Your task to perform on an android device: Open internet settings Image 0: 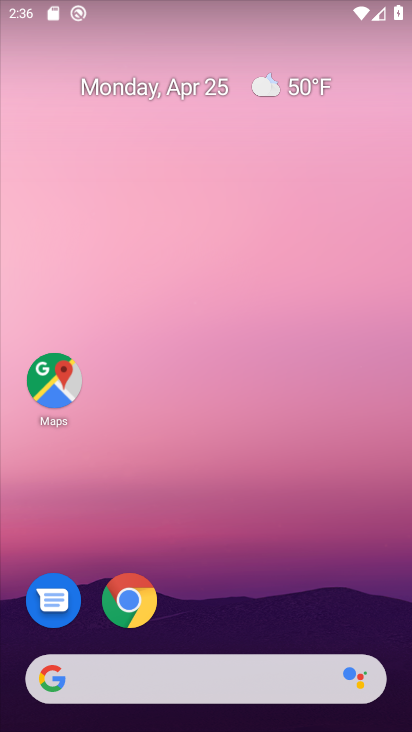
Step 0: drag from (372, 615) to (378, 231)
Your task to perform on an android device: Open internet settings Image 1: 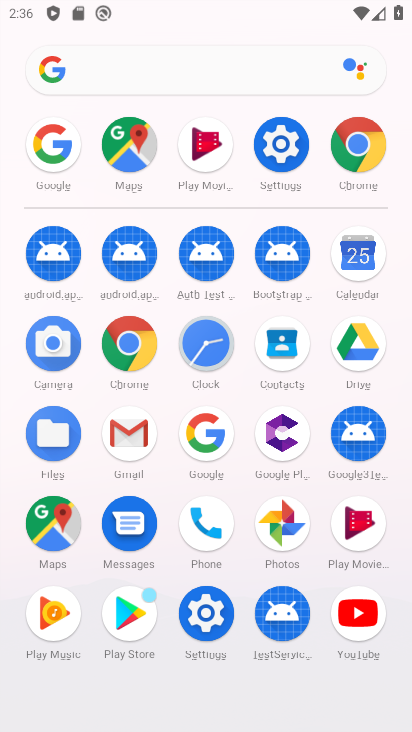
Step 1: click (220, 627)
Your task to perform on an android device: Open internet settings Image 2: 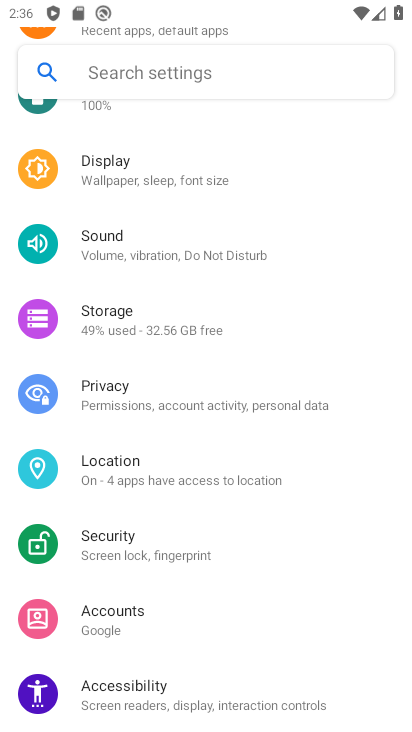
Step 2: drag from (195, 345) to (274, 609)
Your task to perform on an android device: Open internet settings Image 3: 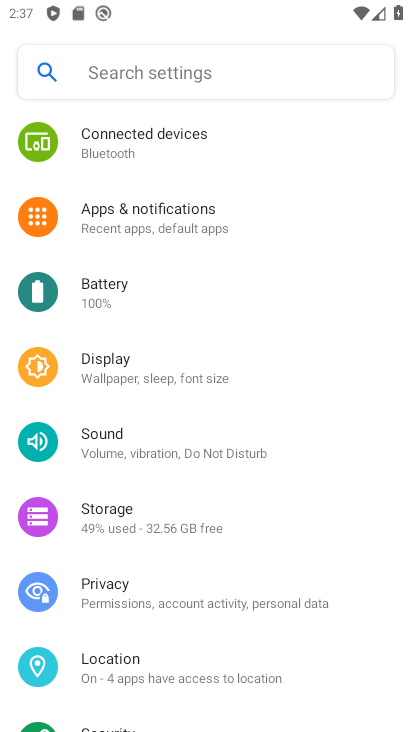
Step 3: drag from (198, 195) to (267, 453)
Your task to perform on an android device: Open internet settings Image 4: 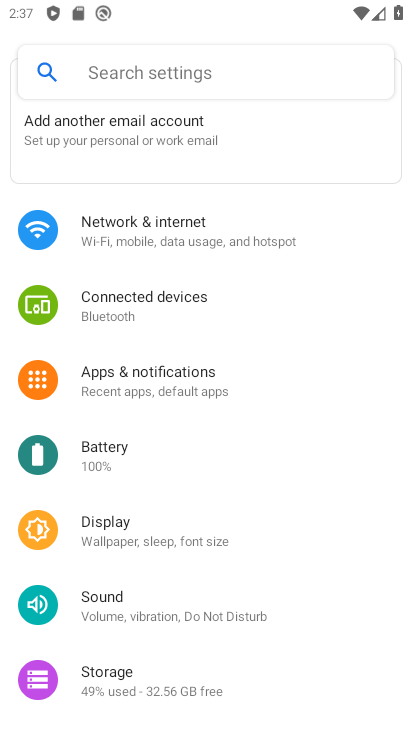
Step 4: click (158, 238)
Your task to perform on an android device: Open internet settings Image 5: 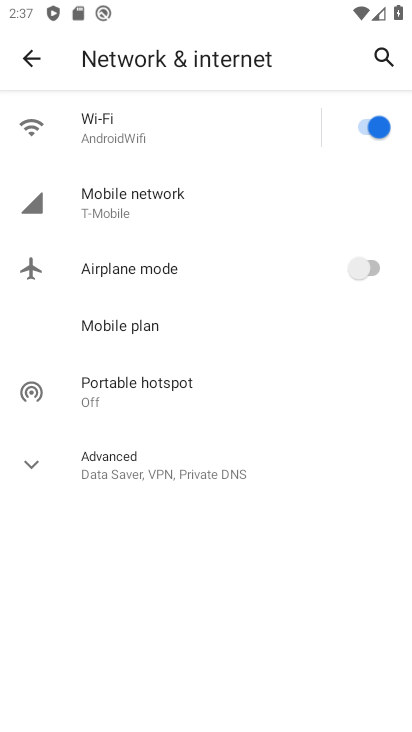
Step 5: click (159, 209)
Your task to perform on an android device: Open internet settings Image 6: 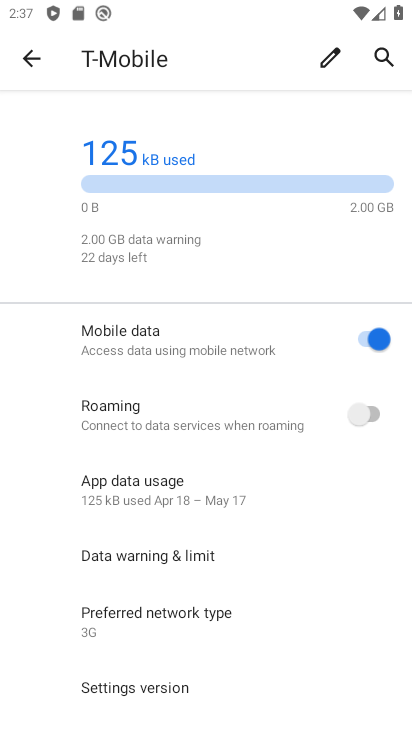
Step 6: task complete